Your task to perform on an android device: Open location settings Image 0: 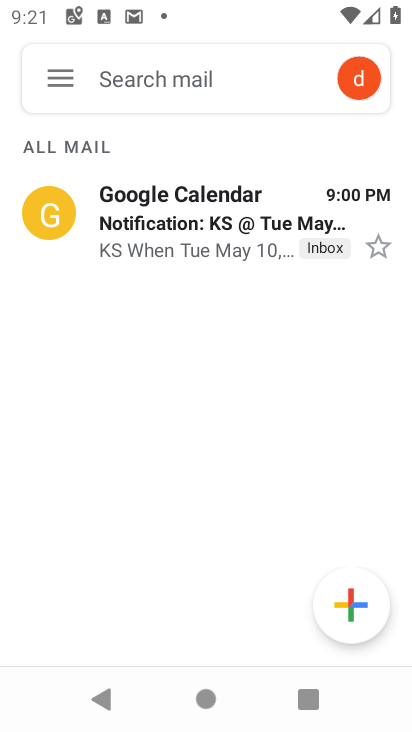
Step 0: press home button
Your task to perform on an android device: Open location settings Image 1: 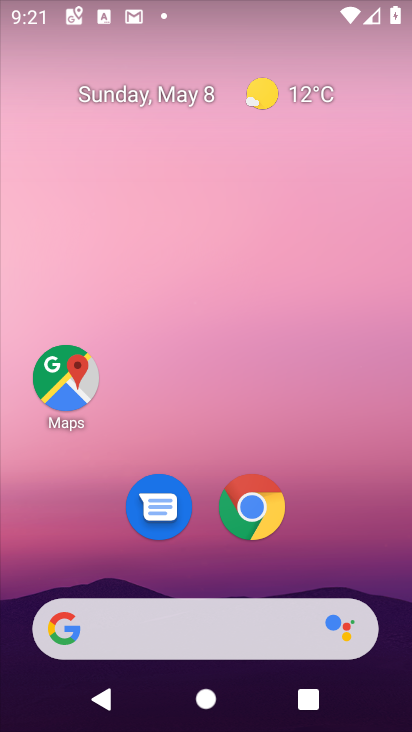
Step 1: drag from (276, 688) to (224, 18)
Your task to perform on an android device: Open location settings Image 2: 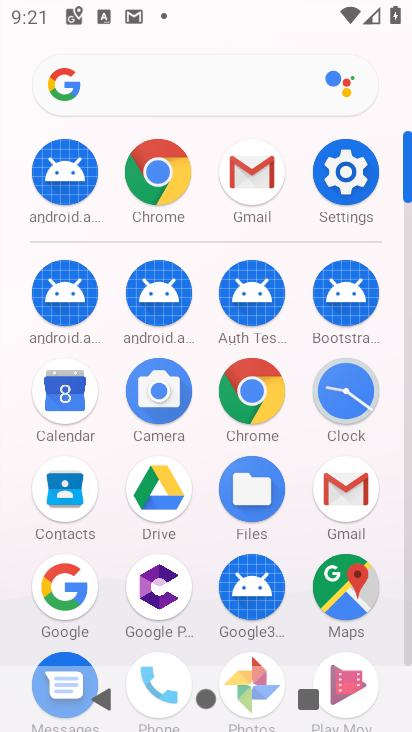
Step 2: click (349, 163)
Your task to perform on an android device: Open location settings Image 3: 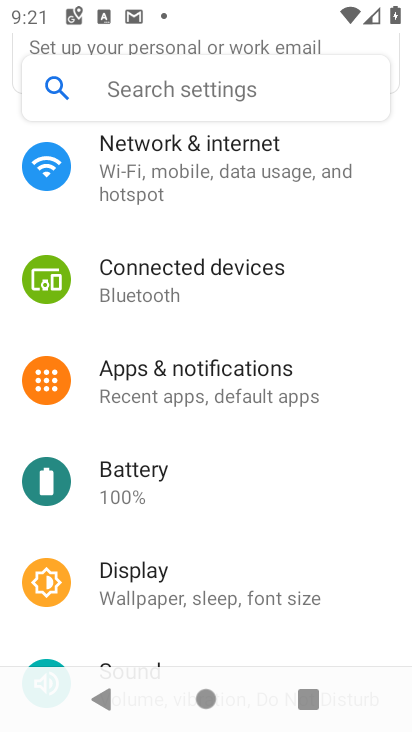
Step 3: drag from (319, 582) to (149, 37)
Your task to perform on an android device: Open location settings Image 4: 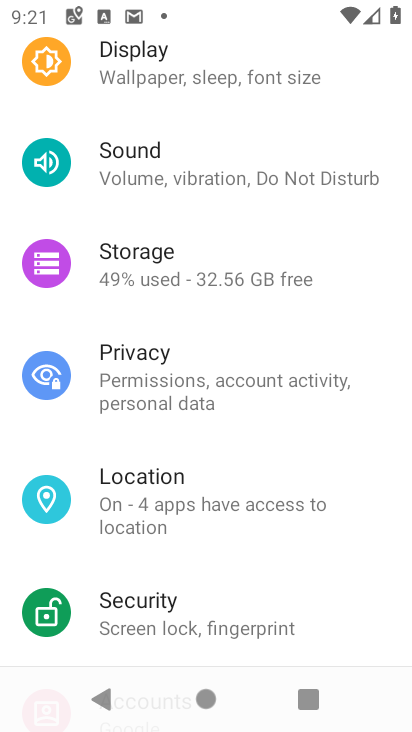
Step 4: click (205, 490)
Your task to perform on an android device: Open location settings Image 5: 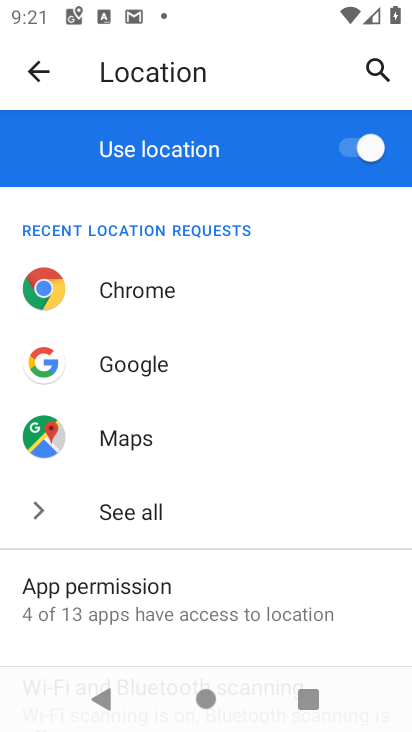
Step 5: task complete